Your task to perform on an android device: Is it going to rain tomorrow? Image 0: 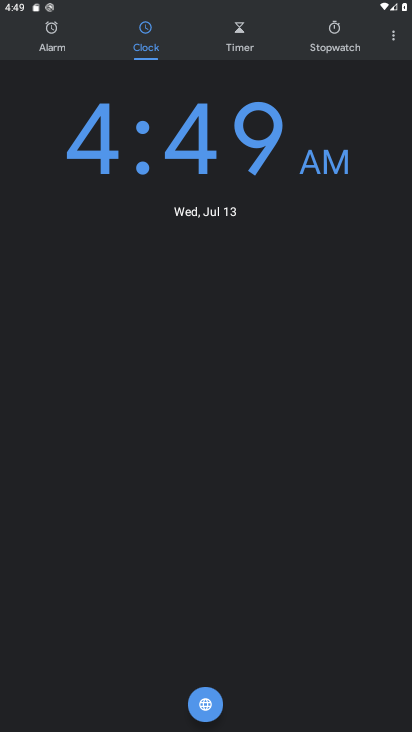
Step 0: press home button
Your task to perform on an android device: Is it going to rain tomorrow? Image 1: 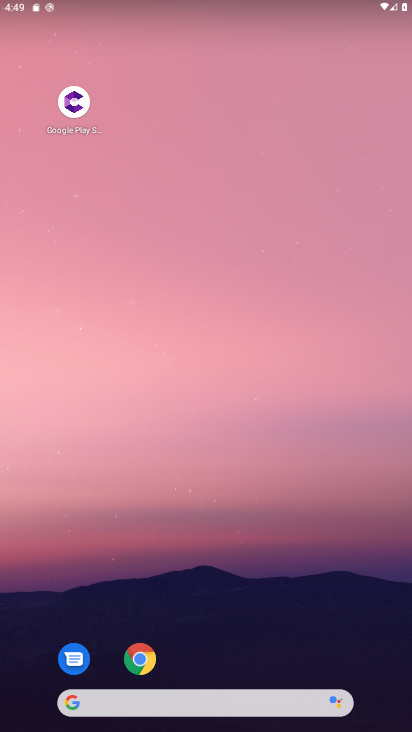
Step 1: drag from (274, 649) to (228, 23)
Your task to perform on an android device: Is it going to rain tomorrow? Image 2: 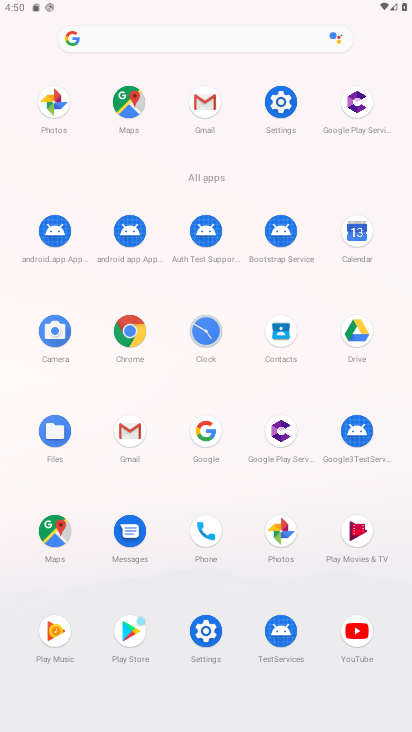
Step 2: click (205, 440)
Your task to perform on an android device: Is it going to rain tomorrow? Image 3: 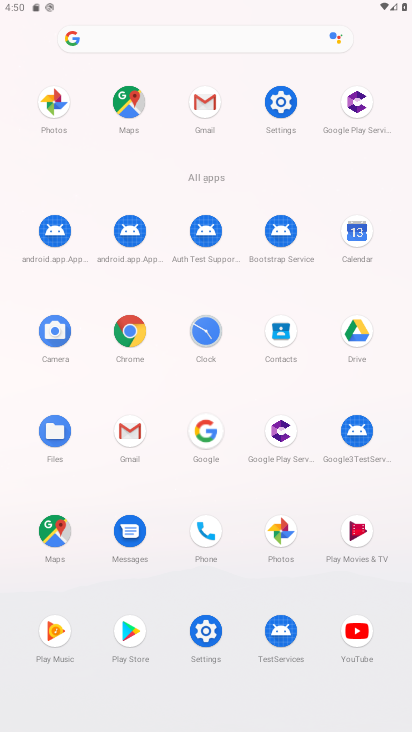
Step 3: click (196, 438)
Your task to perform on an android device: Is it going to rain tomorrow? Image 4: 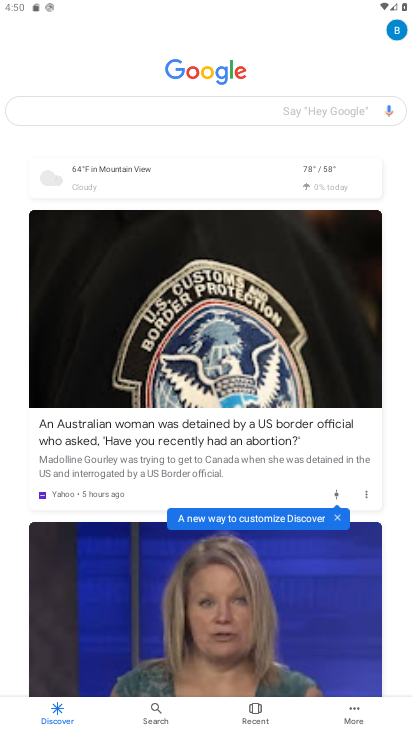
Step 4: click (87, 175)
Your task to perform on an android device: Is it going to rain tomorrow? Image 5: 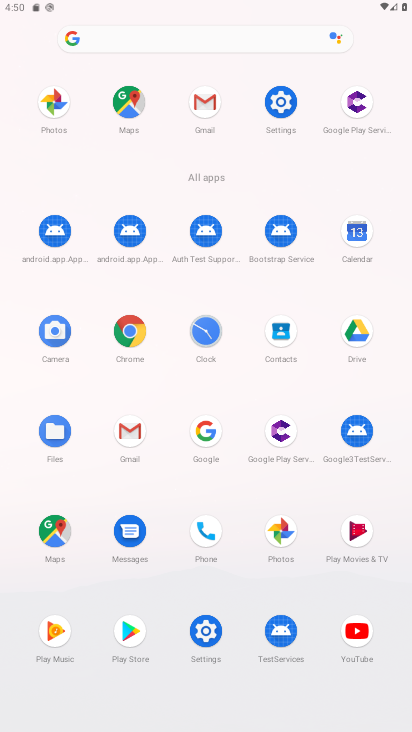
Step 5: click (195, 436)
Your task to perform on an android device: Is it going to rain tomorrow? Image 6: 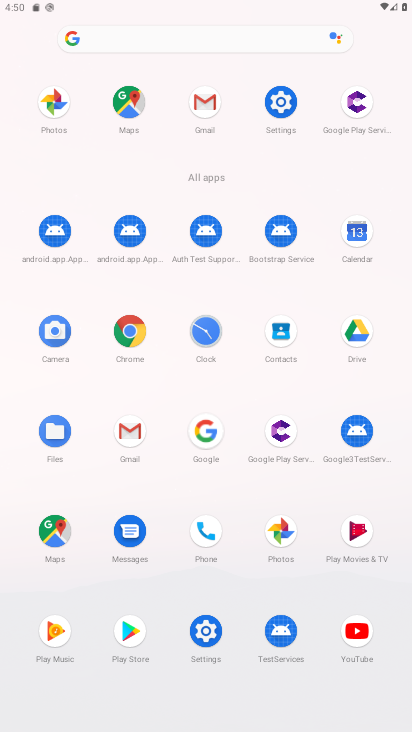
Step 6: click (196, 436)
Your task to perform on an android device: Is it going to rain tomorrow? Image 7: 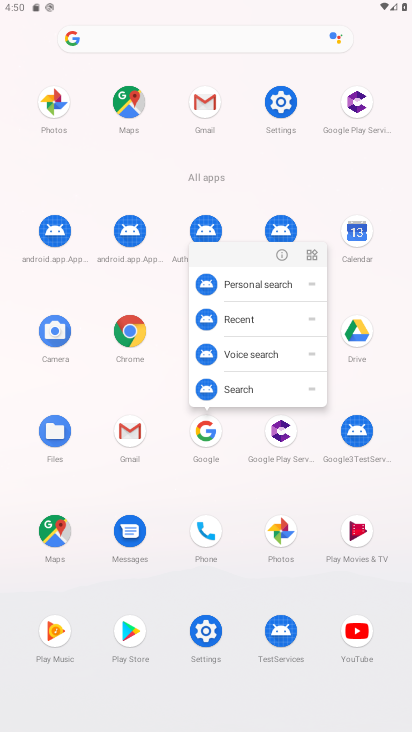
Step 7: click (203, 440)
Your task to perform on an android device: Is it going to rain tomorrow? Image 8: 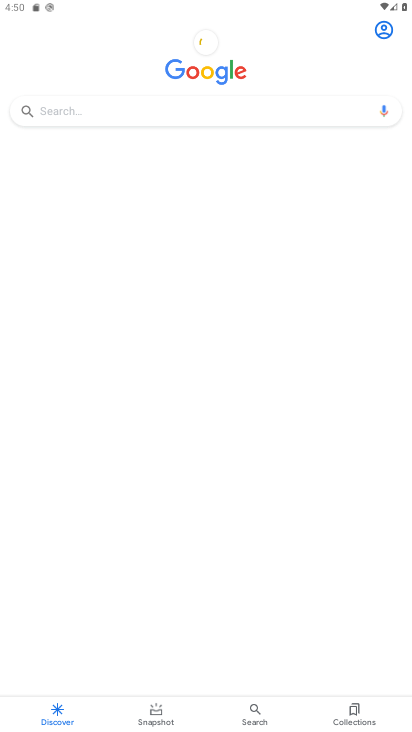
Step 8: click (132, 119)
Your task to perform on an android device: Is it going to rain tomorrow? Image 9: 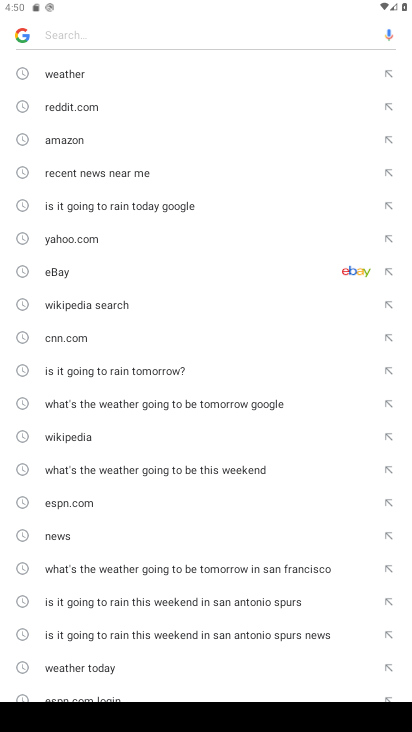
Step 9: press back button
Your task to perform on an android device: Is it going to rain tomorrow? Image 10: 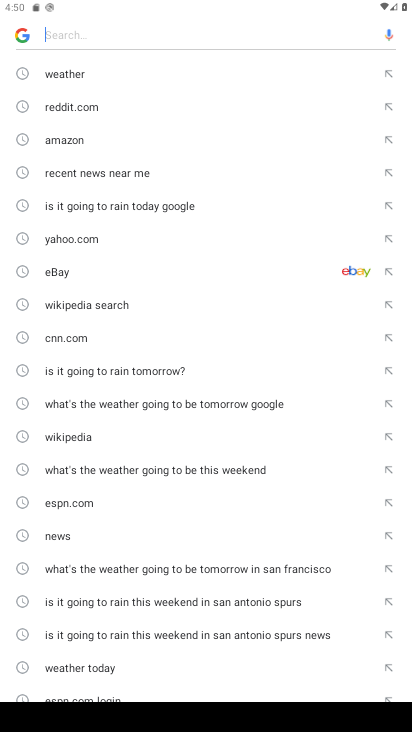
Step 10: click (37, 74)
Your task to perform on an android device: Is it going to rain tomorrow? Image 11: 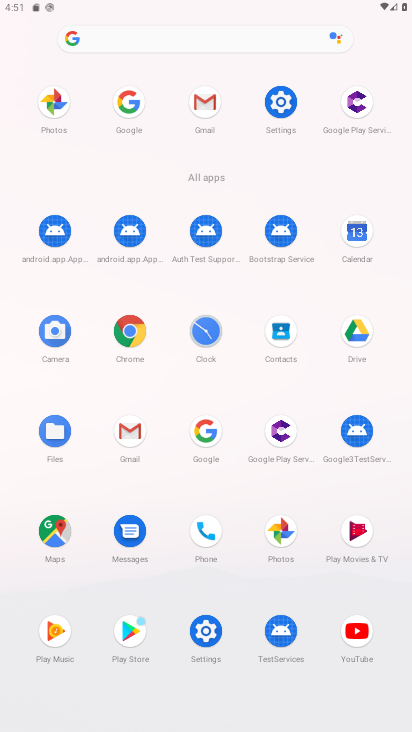
Step 11: click (208, 431)
Your task to perform on an android device: Is it going to rain tomorrow? Image 12: 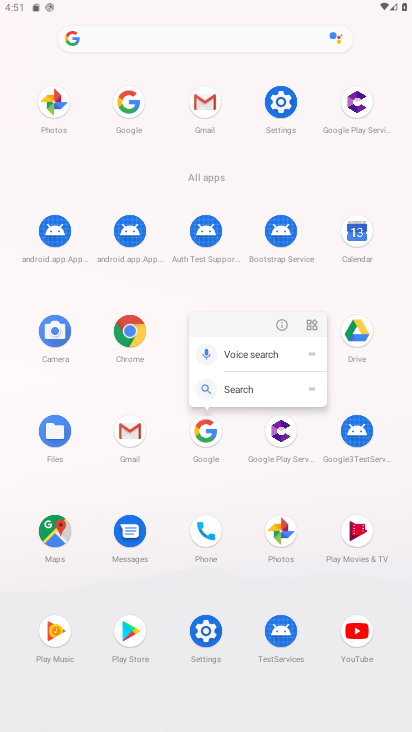
Step 12: click (203, 426)
Your task to perform on an android device: Is it going to rain tomorrow? Image 13: 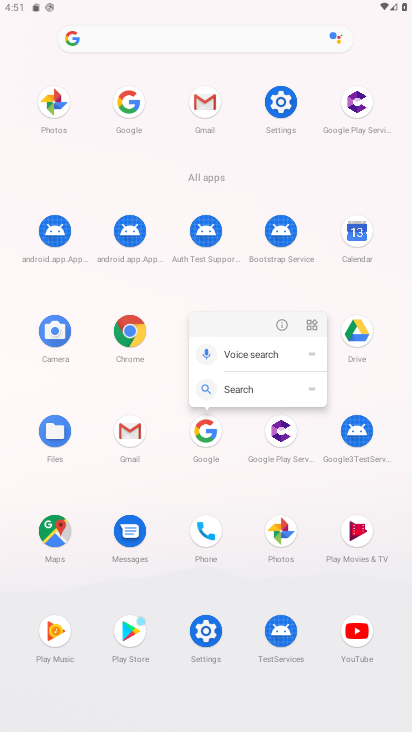
Step 13: click (201, 424)
Your task to perform on an android device: Is it going to rain tomorrow? Image 14: 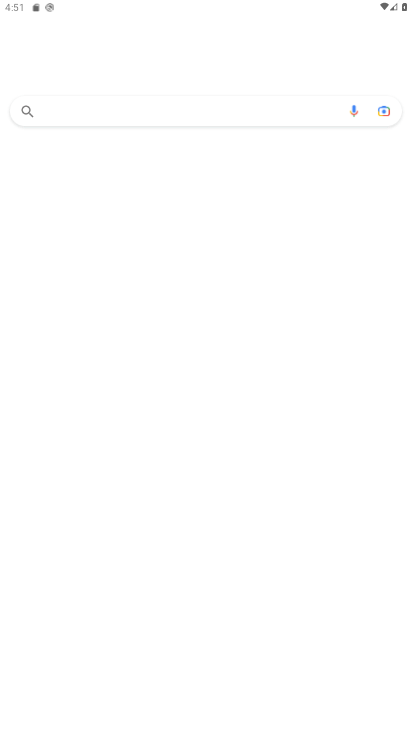
Step 14: click (196, 430)
Your task to perform on an android device: Is it going to rain tomorrow? Image 15: 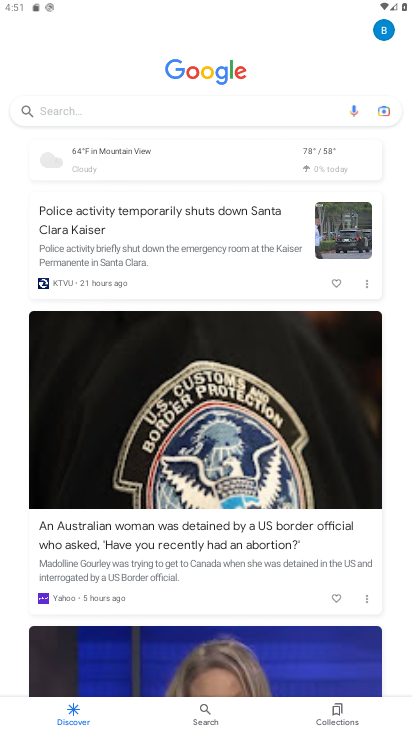
Step 15: click (188, 174)
Your task to perform on an android device: Is it going to rain tomorrow? Image 16: 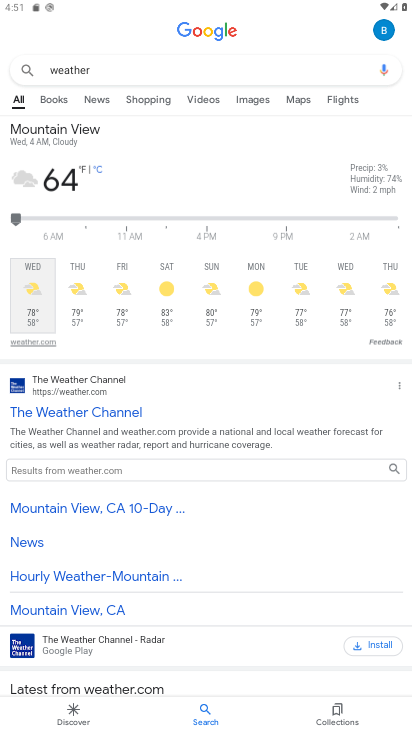
Step 16: task complete